Your task to perform on an android device: check out phone information Image 0: 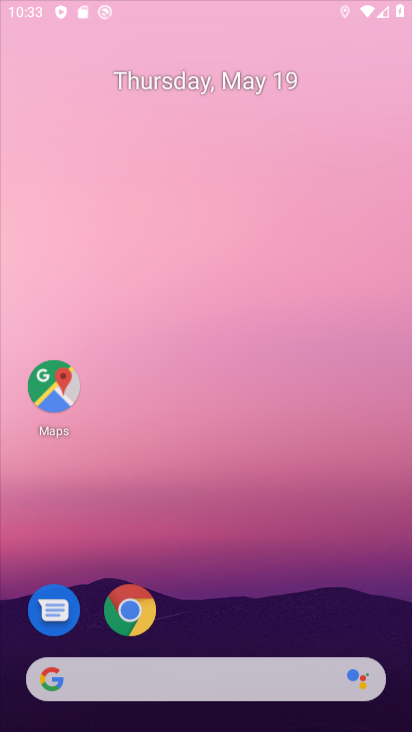
Step 0: click (170, 271)
Your task to perform on an android device: check out phone information Image 1: 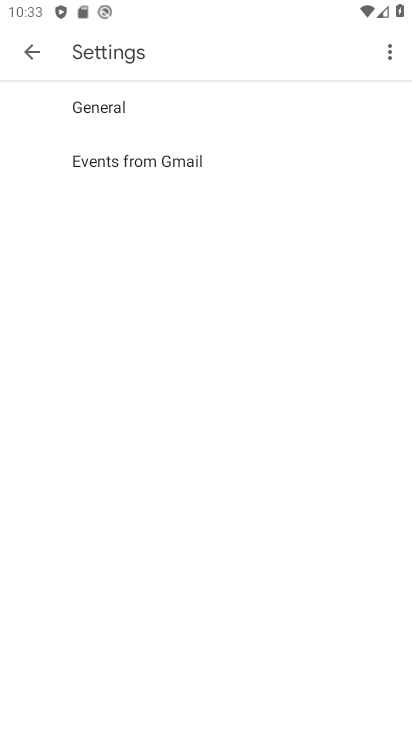
Step 1: click (24, 50)
Your task to perform on an android device: check out phone information Image 2: 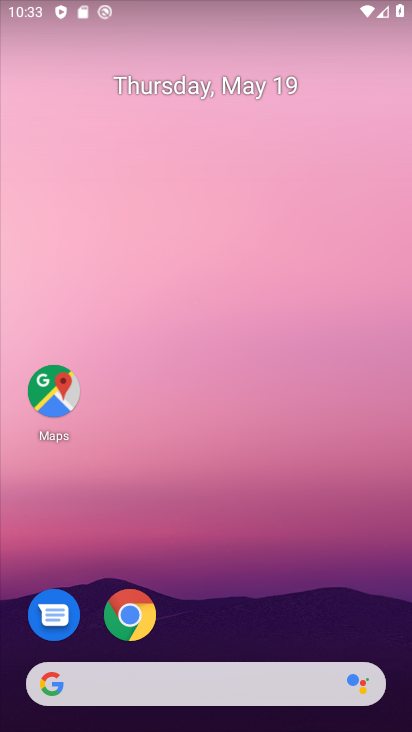
Step 2: drag from (284, 698) to (254, 159)
Your task to perform on an android device: check out phone information Image 3: 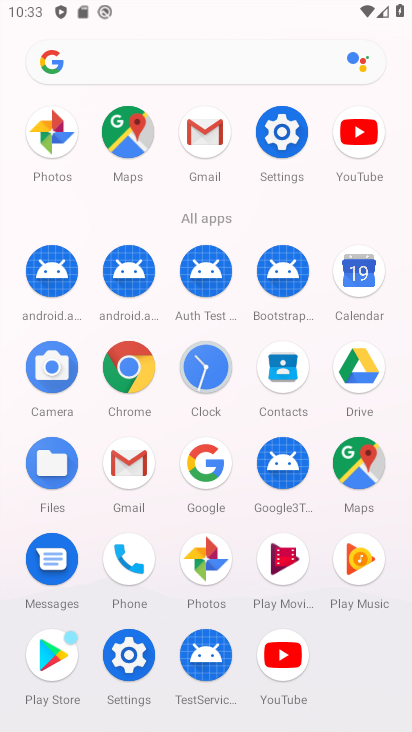
Step 3: click (139, 662)
Your task to perform on an android device: check out phone information Image 4: 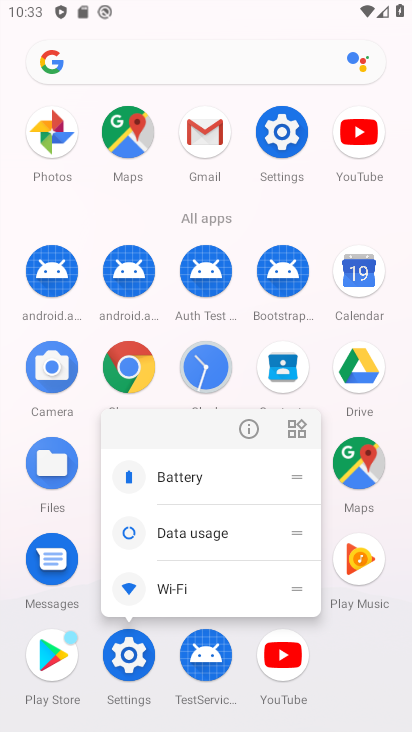
Step 4: click (128, 663)
Your task to perform on an android device: check out phone information Image 5: 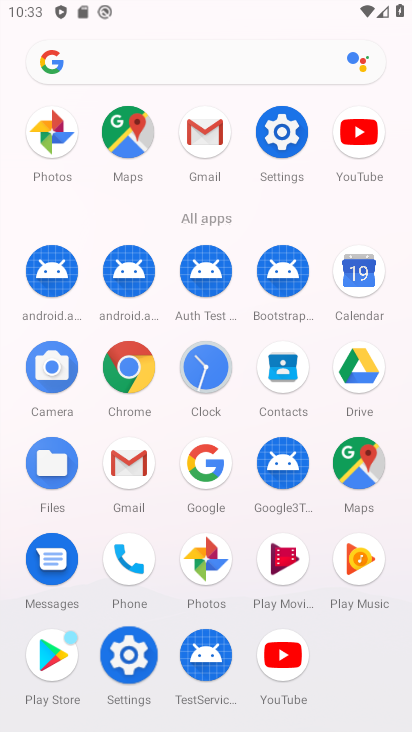
Step 5: click (128, 661)
Your task to perform on an android device: check out phone information Image 6: 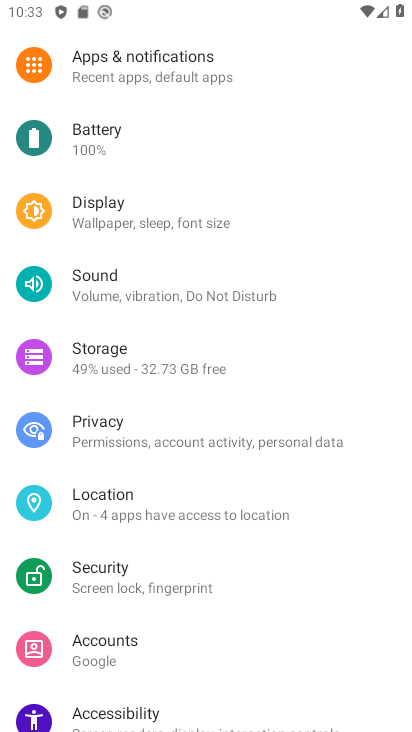
Step 6: drag from (115, 634) to (130, 211)
Your task to perform on an android device: check out phone information Image 7: 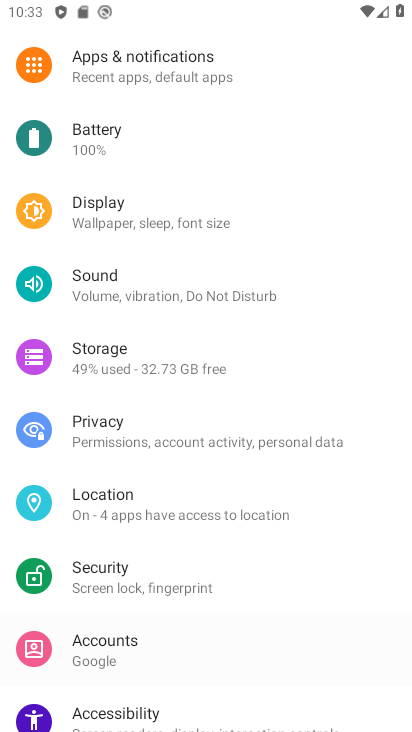
Step 7: drag from (161, 502) to (151, 33)
Your task to perform on an android device: check out phone information Image 8: 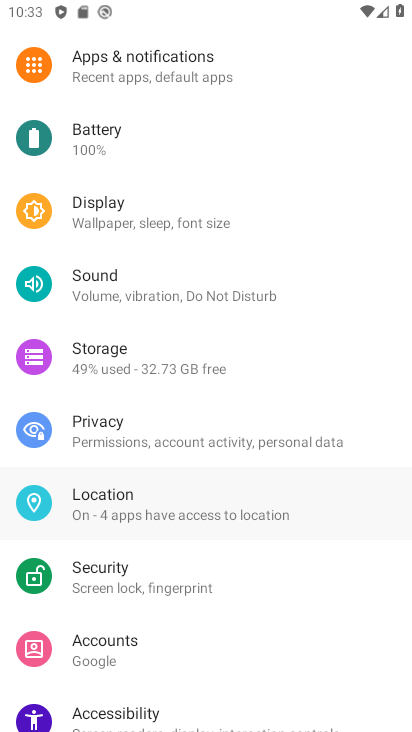
Step 8: drag from (138, 577) to (171, 72)
Your task to perform on an android device: check out phone information Image 9: 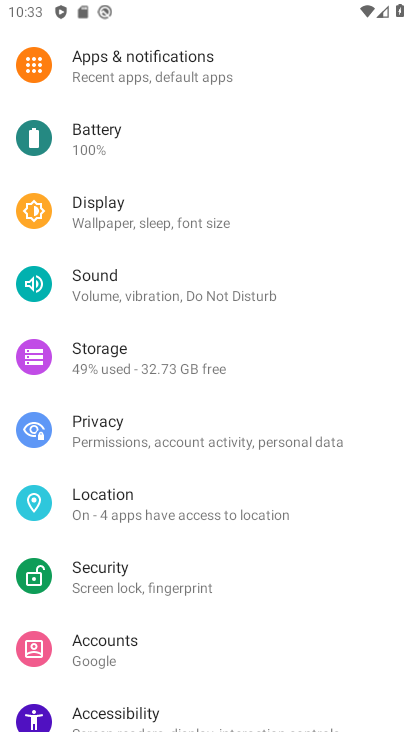
Step 9: drag from (134, 675) to (141, 198)
Your task to perform on an android device: check out phone information Image 10: 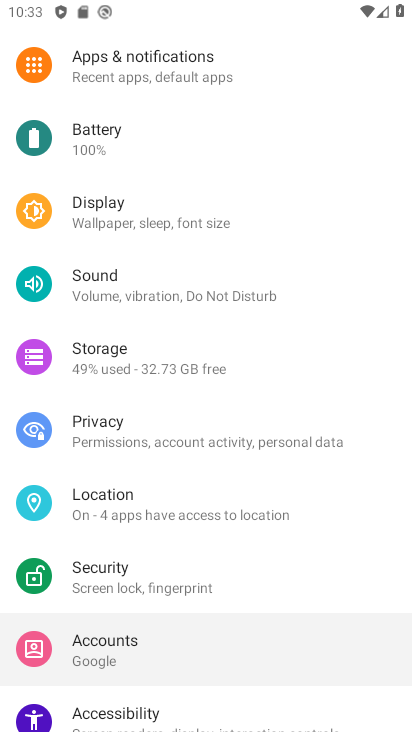
Step 10: drag from (214, 633) to (197, 99)
Your task to perform on an android device: check out phone information Image 11: 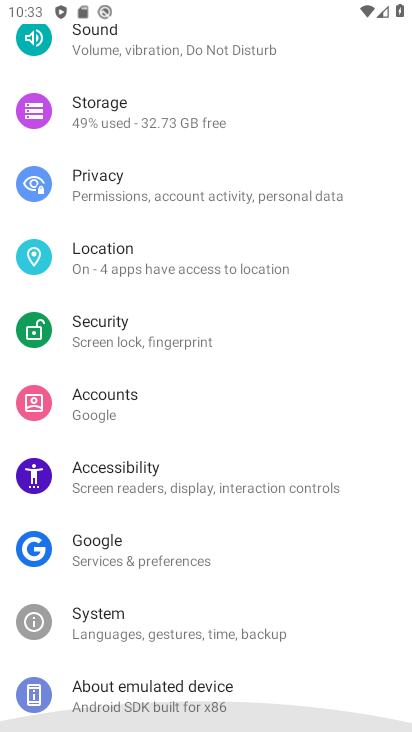
Step 11: drag from (174, 464) to (184, 140)
Your task to perform on an android device: check out phone information Image 12: 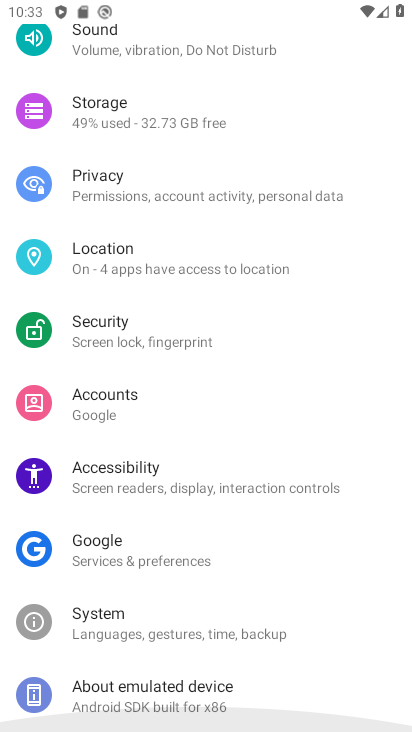
Step 12: drag from (197, 548) to (185, 412)
Your task to perform on an android device: check out phone information Image 13: 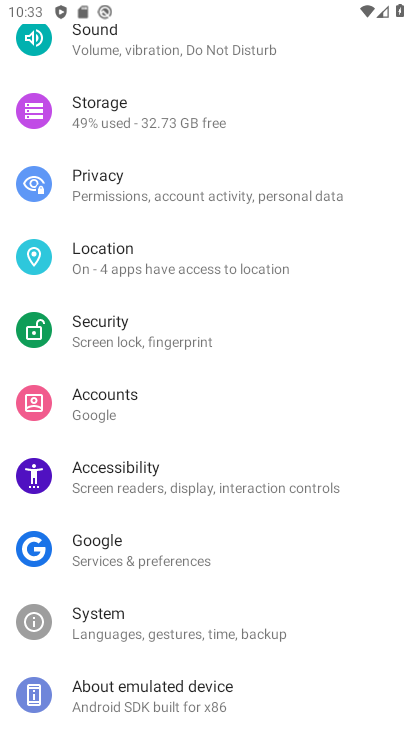
Step 13: click (129, 694)
Your task to perform on an android device: check out phone information Image 14: 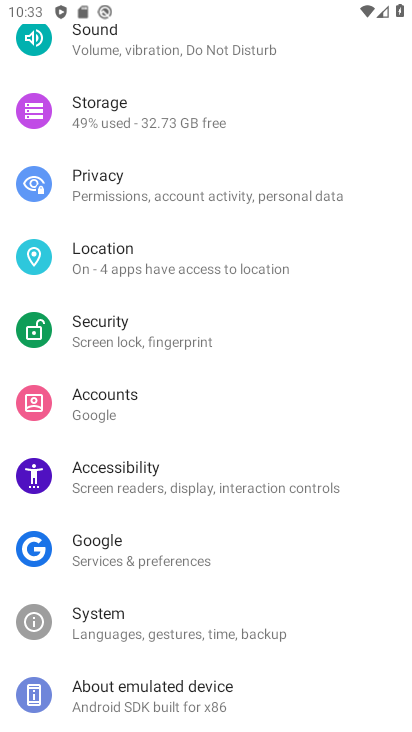
Step 14: click (129, 694)
Your task to perform on an android device: check out phone information Image 15: 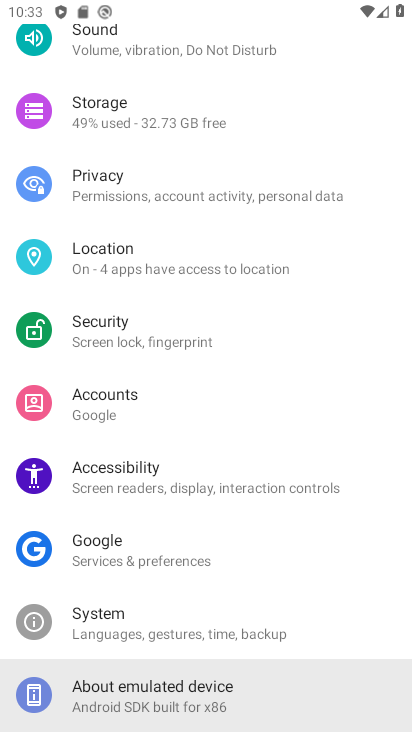
Step 15: click (129, 694)
Your task to perform on an android device: check out phone information Image 16: 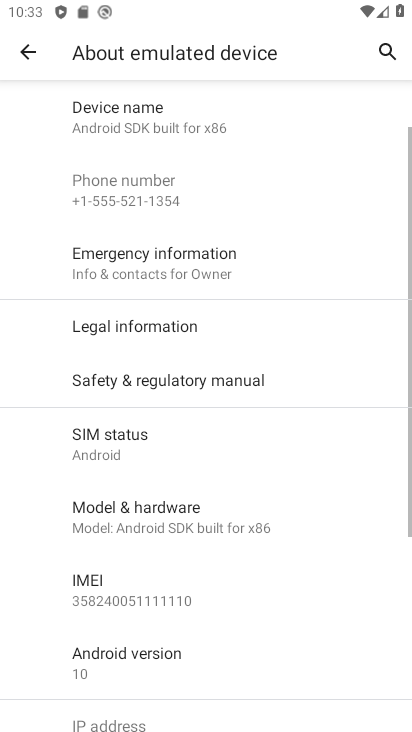
Step 16: task complete